Your task to perform on an android device: Open accessibility settings Image 0: 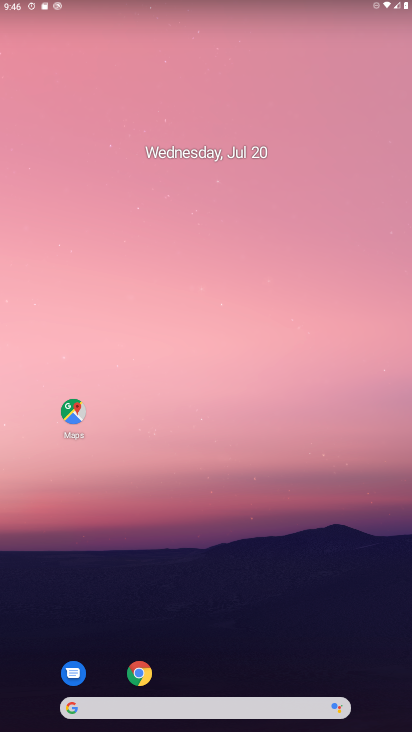
Step 0: drag from (379, 681) to (188, 52)
Your task to perform on an android device: Open accessibility settings Image 1: 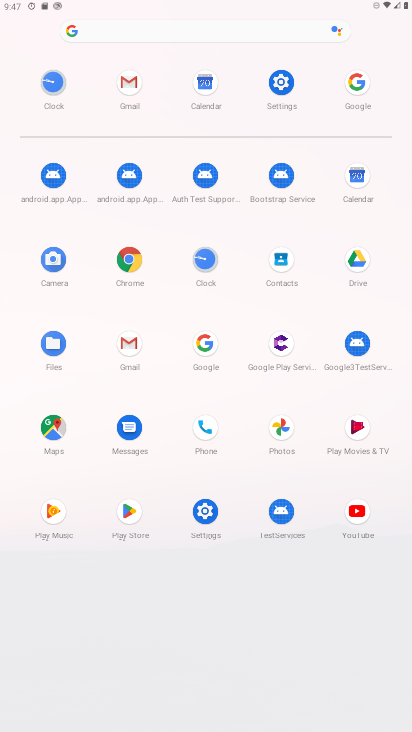
Step 1: click (202, 509)
Your task to perform on an android device: Open accessibility settings Image 2: 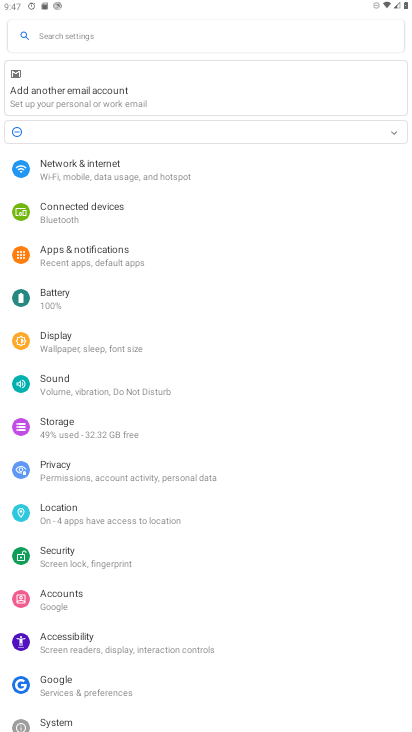
Step 2: click (81, 646)
Your task to perform on an android device: Open accessibility settings Image 3: 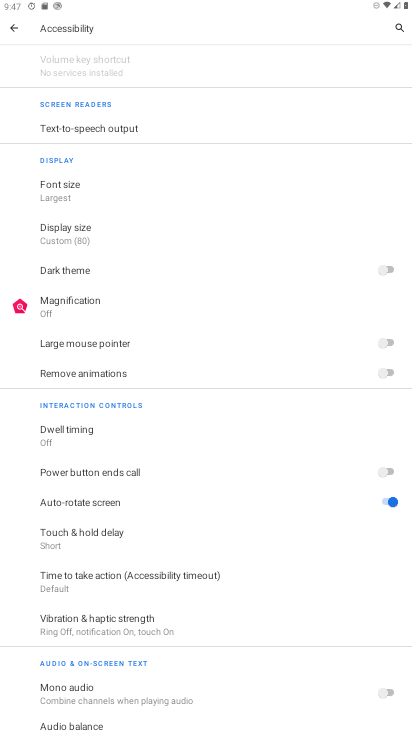
Step 3: task complete